Your task to perform on an android device: turn on data saver in the chrome app Image 0: 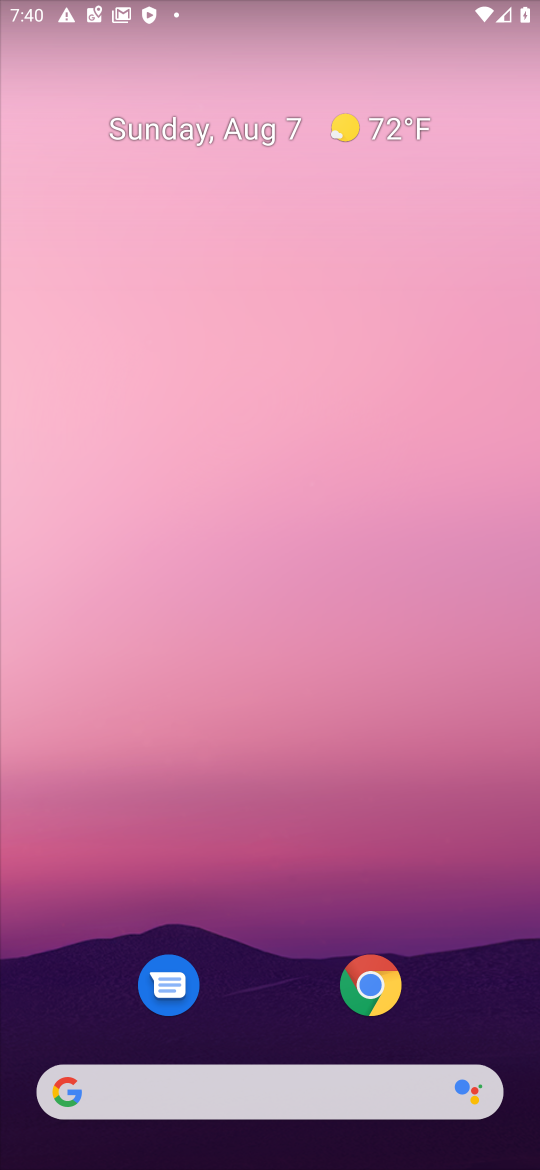
Step 0: click (317, 86)
Your task to perform on an android device: turn on data saver in the chrome app Image 1: 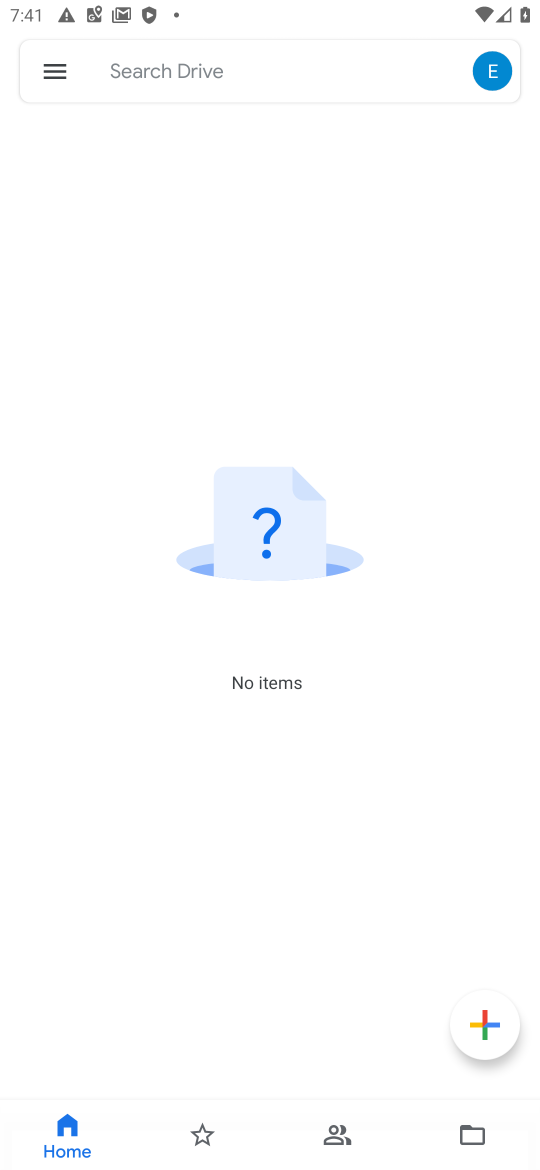
Step 1: click (491, 59)
Your task to perform on an android device: turn on data saver in the chrome app Image 2: 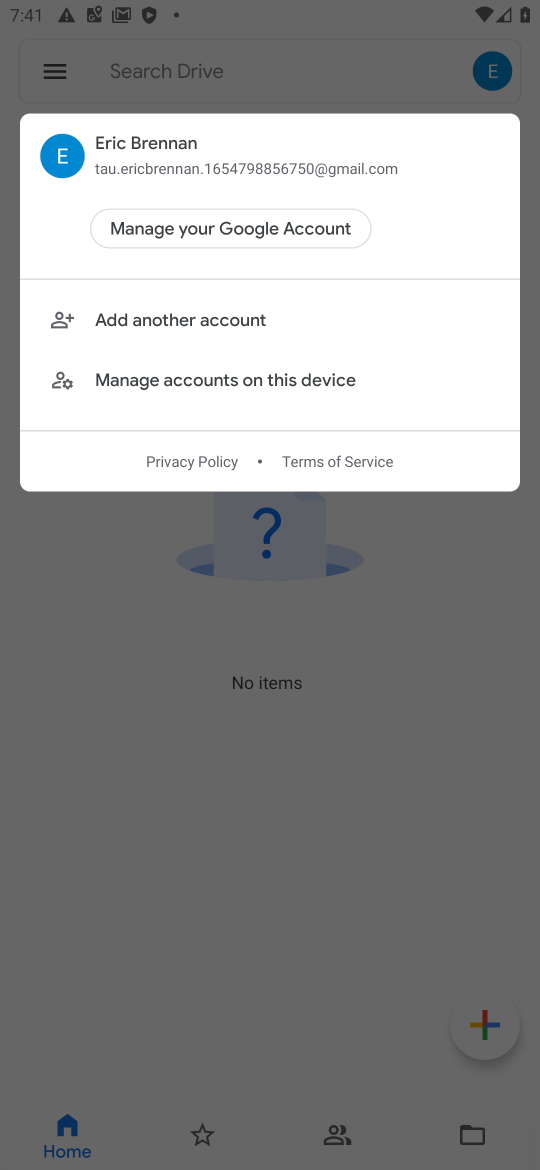
Step 2: click (54, 542)
Your task to perform on an android device: turn on data saver in the chrome app Image 3: 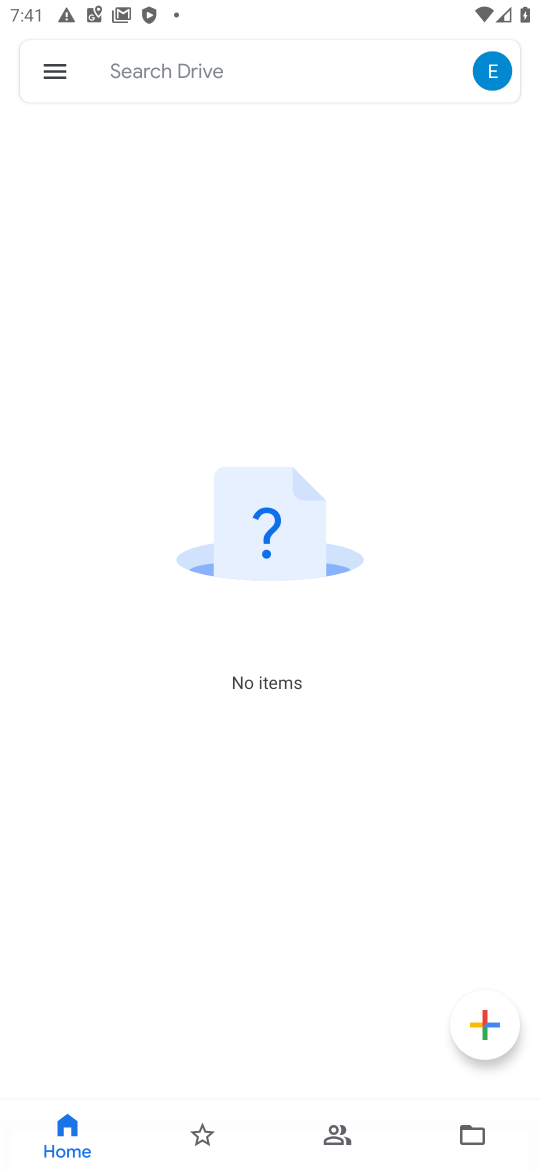
Step 3: click (64, 81)
Your task to perform on an android device: turn on data saver in the chrome app Image 4: 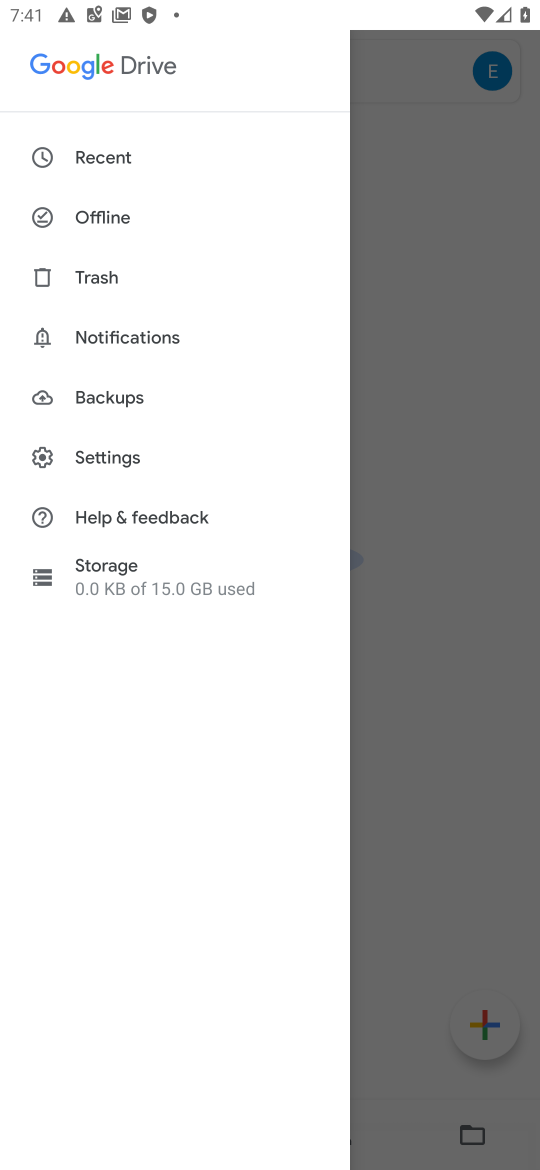
Step 4: click (105, 449)
Your task to perform on an android device: turn on data saver in the chrome app Image 5: 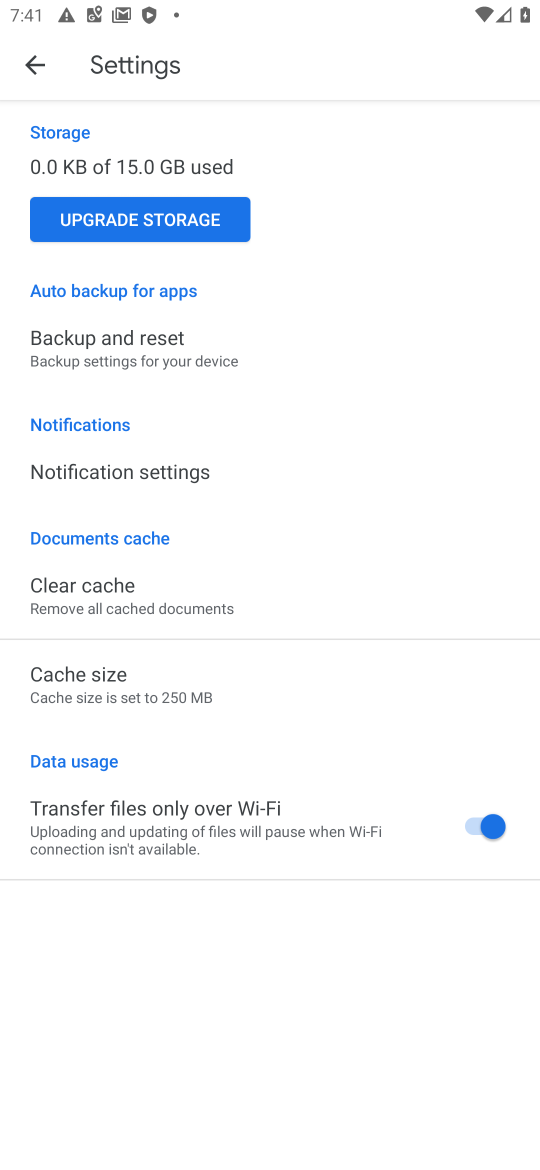
Step 5: click (28, 59)
Your task to perform on an android device: turn on data saver in the chrome app Image 6: 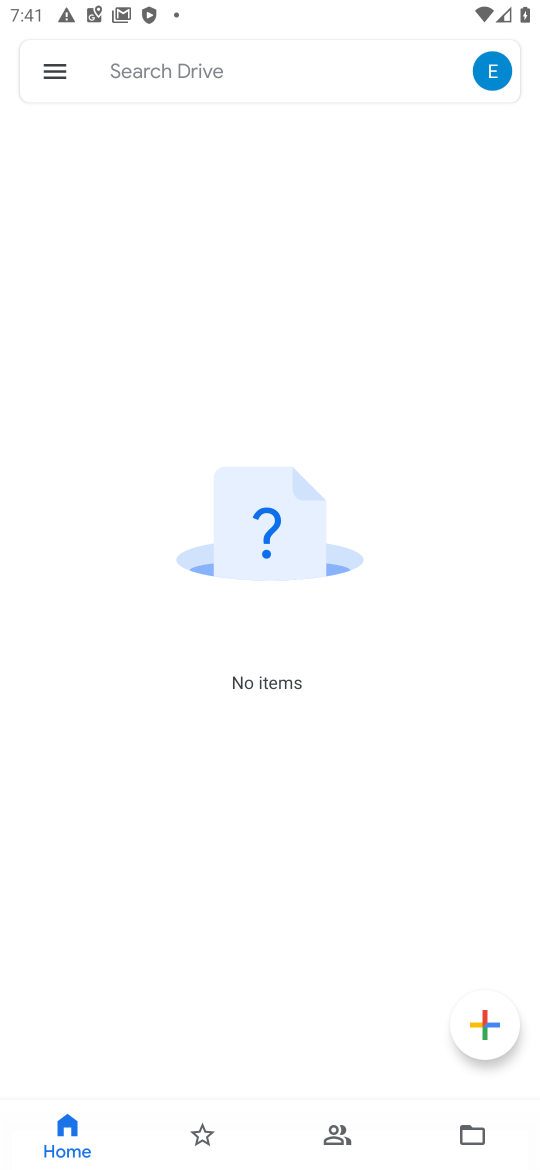
Step 6: click (28, 59)
Your task to perform on an android device: turn on data saver in the chrome app Image 7: 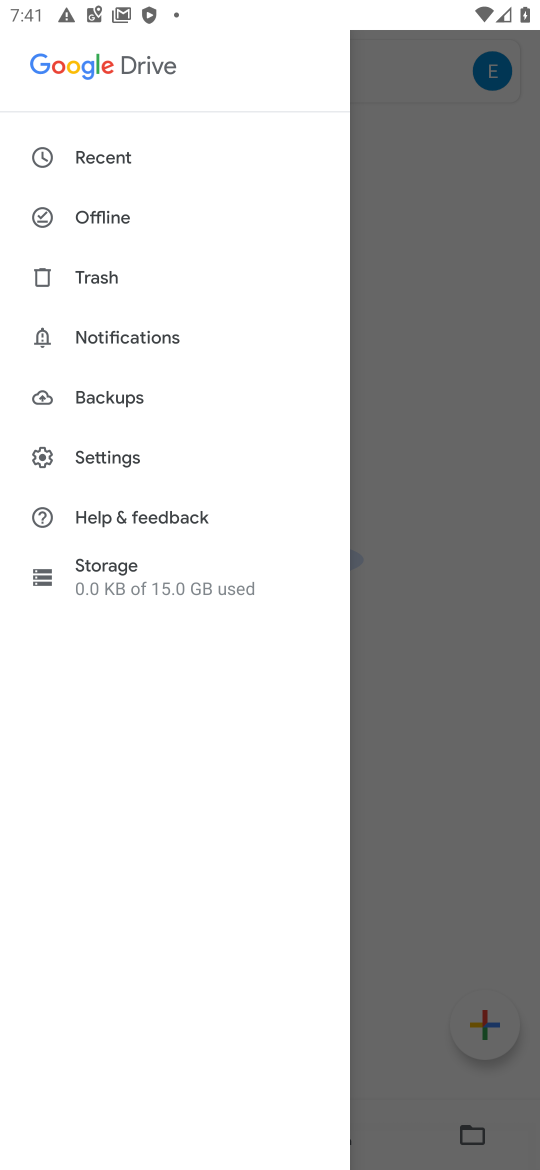
Step 7: press home button
Your task to perform on an android device: turn on data saver in the chrome app Image 8: 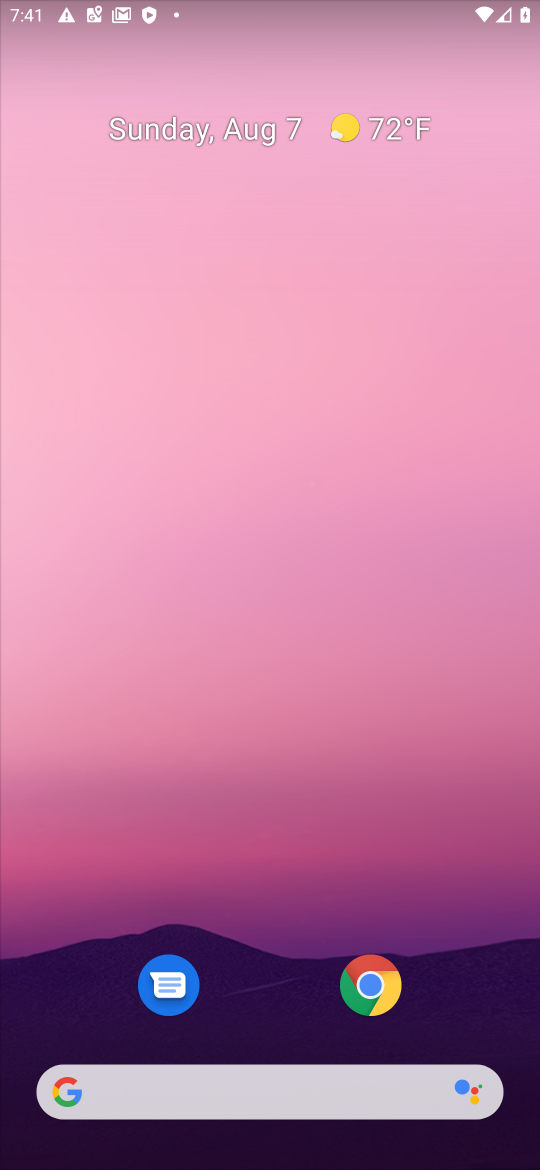
Step 8: drag from (263, 1001) to (277, 207)
Your task to perform on an android device: turn on data saver in the chrome app Image 9: 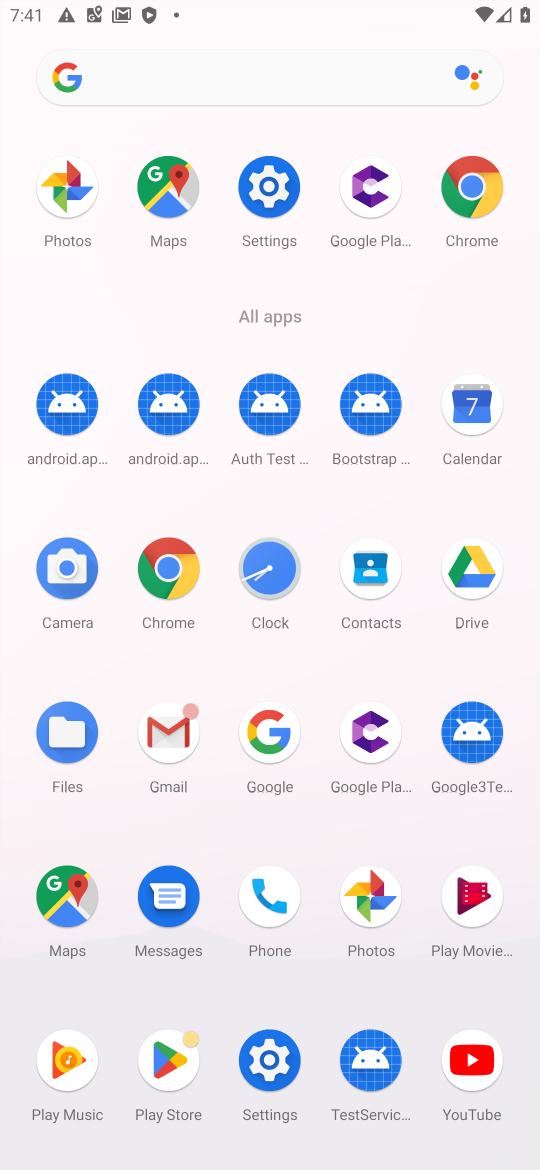
Step 9: click (179, 561)
Your task to perform on an android device: turn on data saver in the chrome app Image 10: 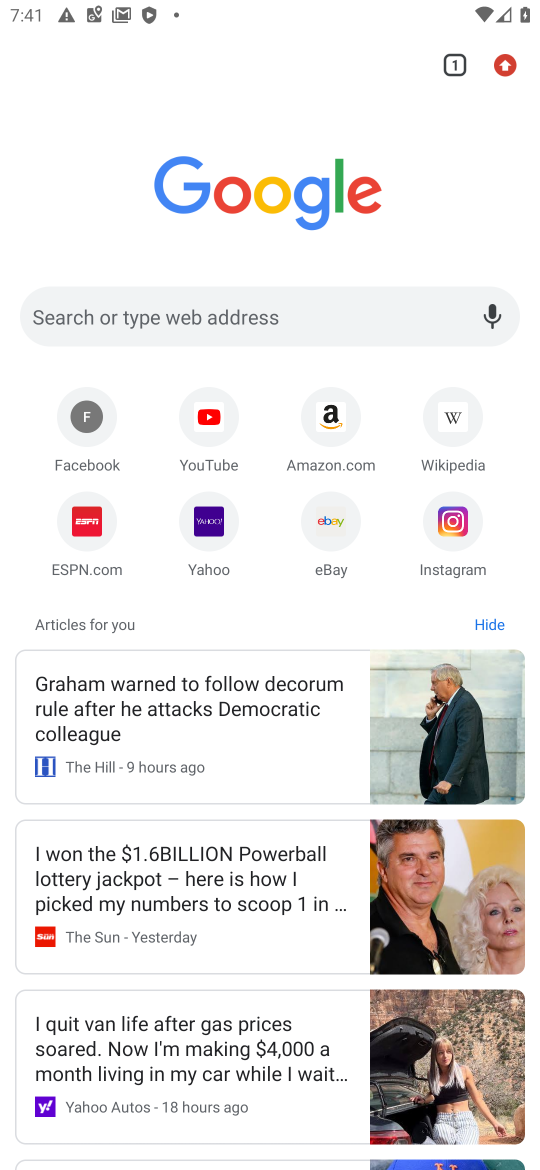
Step 10: click (534, 64)
Your task to perform on an android device: turn on data saver in the chrome app Image 11: 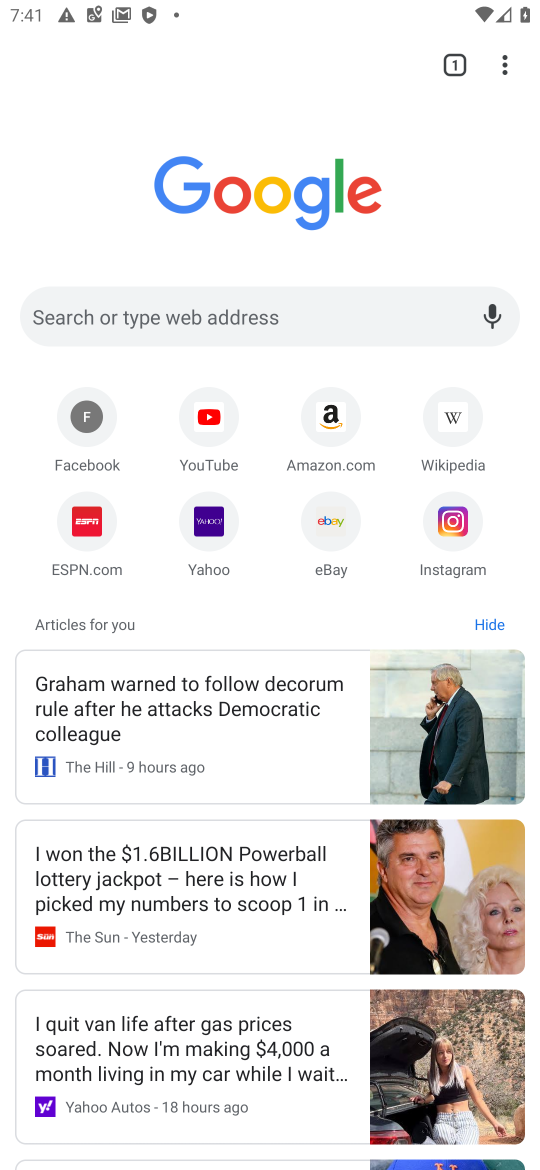
Step 11: click (516, 43)
Your task to perform on an android device: turn on data saver in the chrome app Image 12: 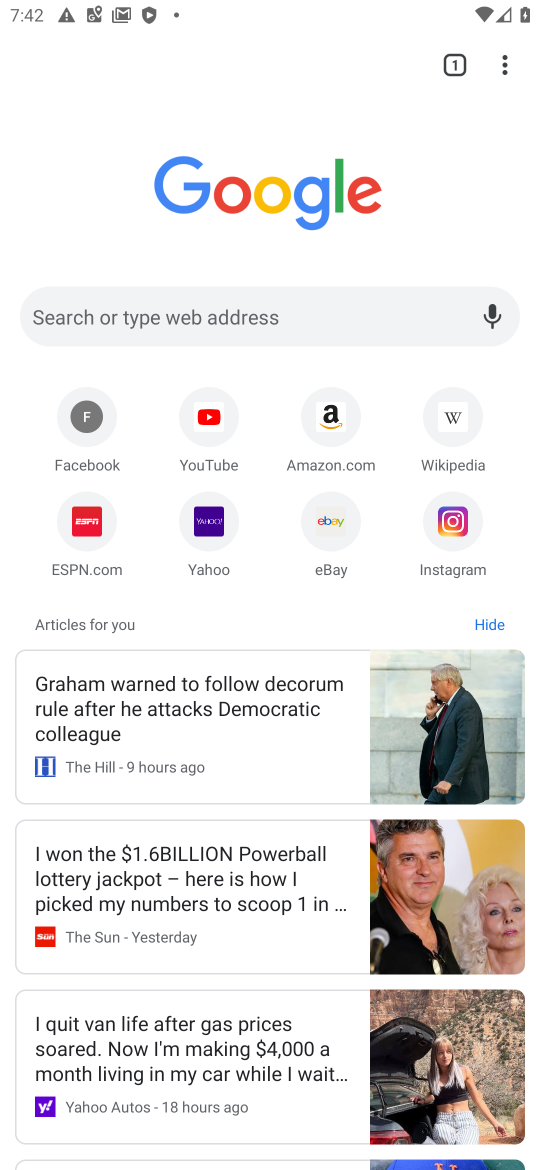
Step 12: click (502, 58)
Your task to perform on an android device: turn on data saver in the chrome app Image 13: 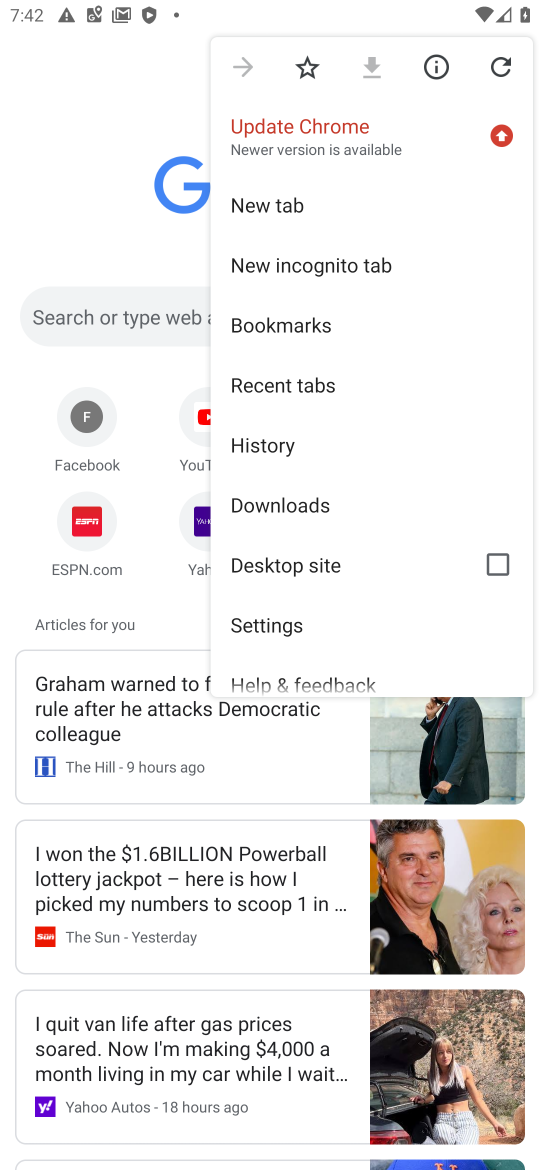
Step 13: click (282, 621)
Your task to perform on an android device: turn on data saver in the chrome app Image 14: 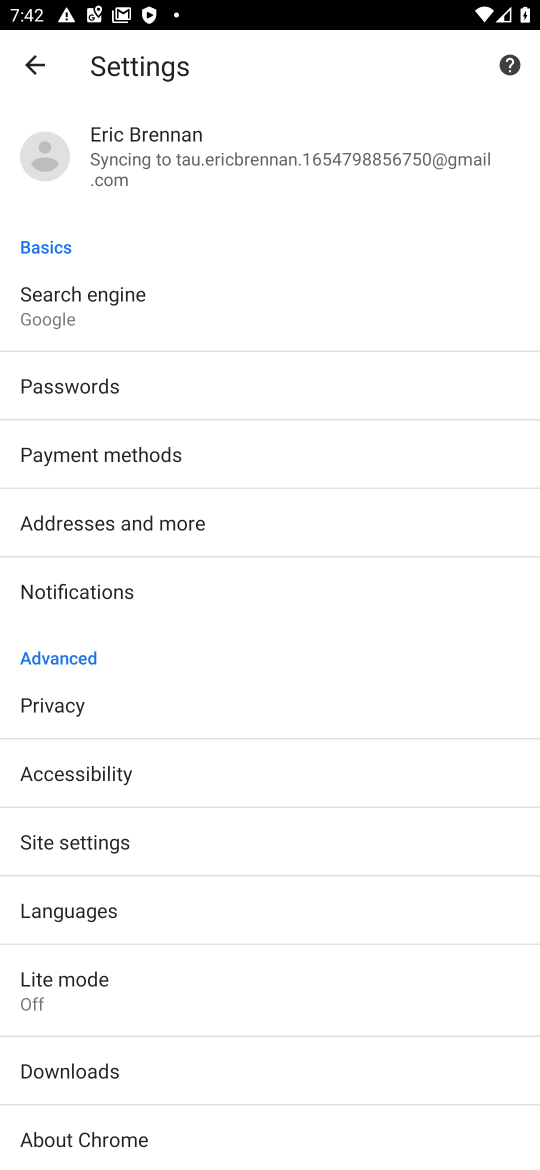
Step 14: click (122, 976)
Your task to perform on an android device: turn on data saver in the chrome app Image 15: 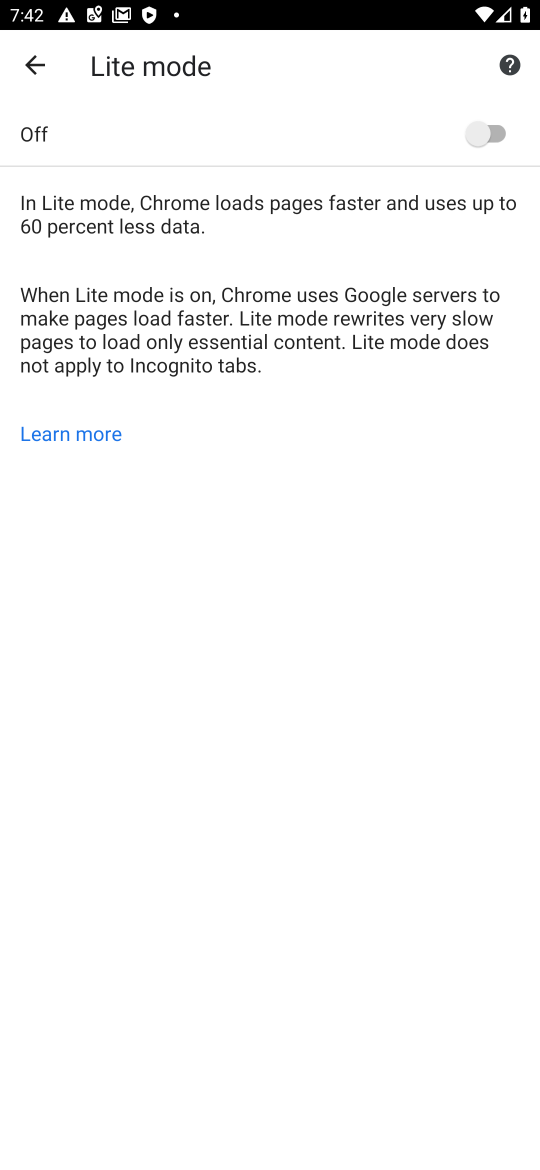
Step 15: click (487, 118)
Your task to perform on an android device: turn on data saver in the chrome app Image 16: 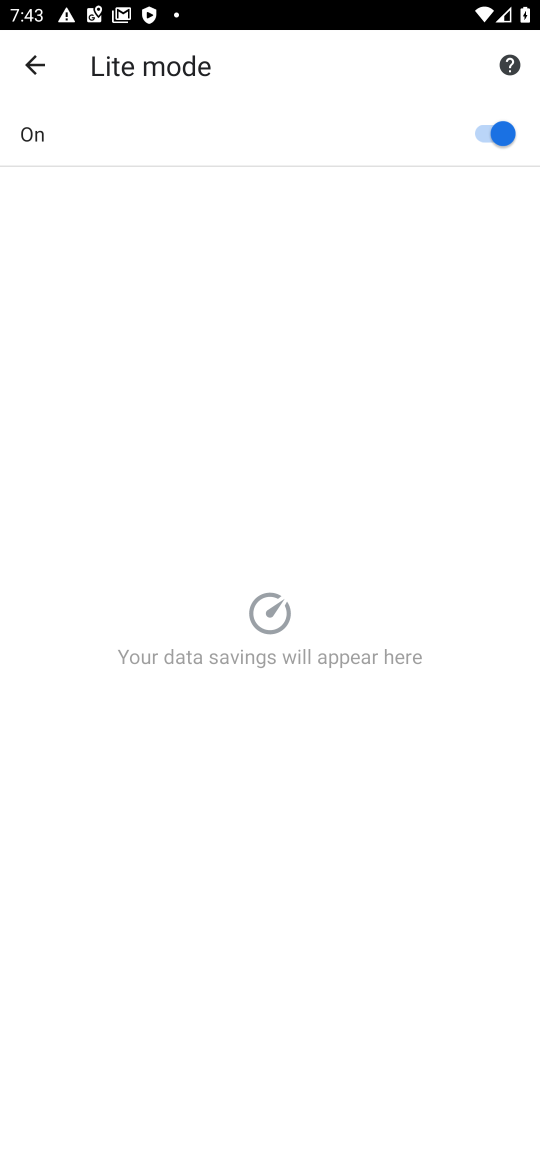
Step 16: task complete